Your task to perform on an android device: turn on wifi Image 0: 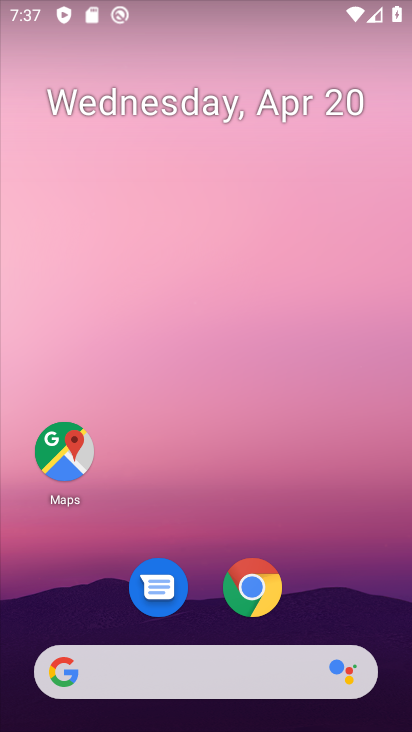
Step 0: drag from (345, 503) to (366, 73)
Your task to perform on an android device: turn on wifi Image 1: 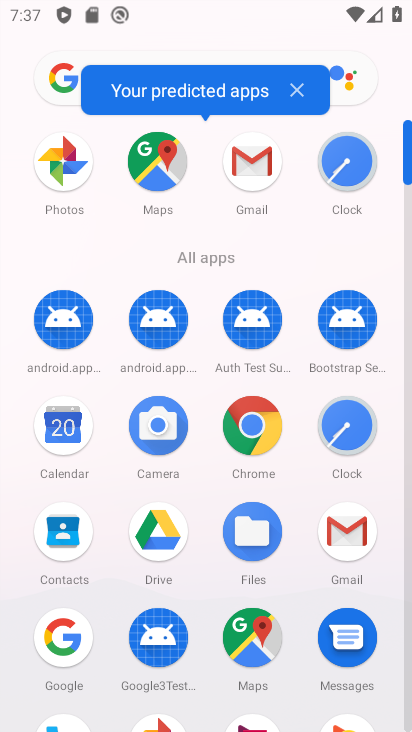
Step 1: drag from (383, 475) to (381, 178)
Your task to perform on an android device: turn on wifi Image 2: 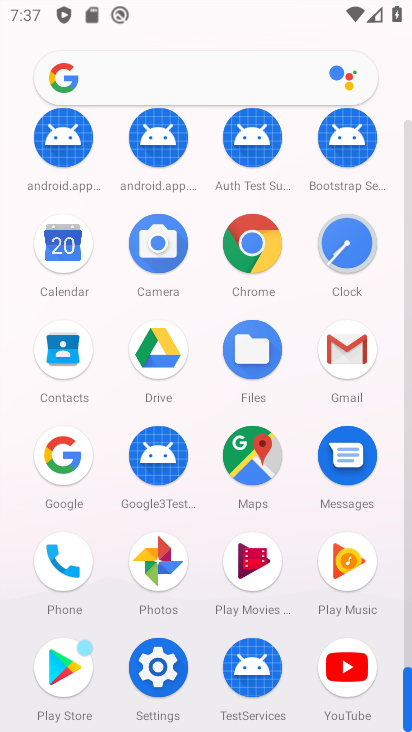
Step 2: click (164, 671)
Your task to perform on an android device: turn on wifi Image 3: 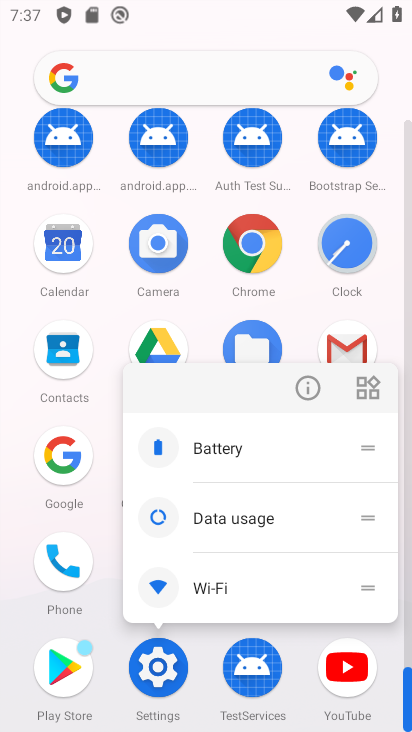
Step 3: click (170, 674)
Your task to perform on an android device: turn on wifi Image 4: 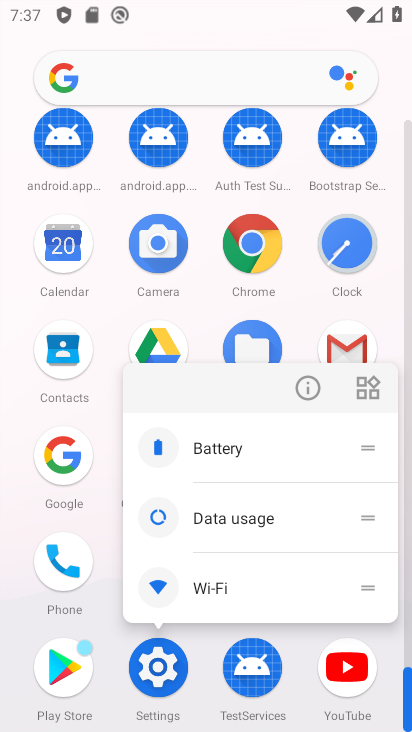
Step 4: click (168, 658)
Your task to perform on an android device: turn on wifi Image 5: 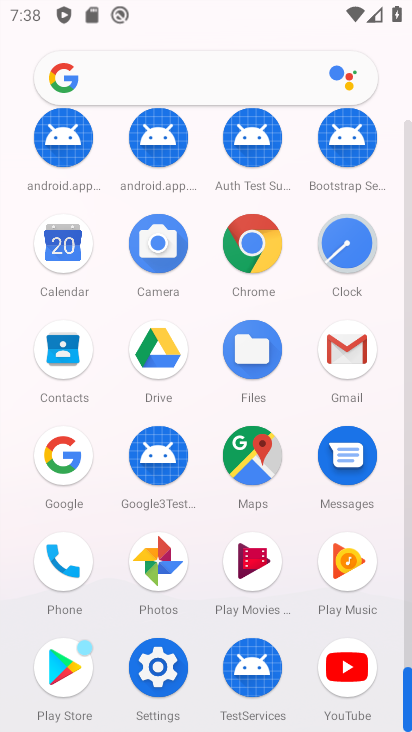
Step 5: click (173, 666)
Your task to perform on an android device: turn on wifi Image 6: 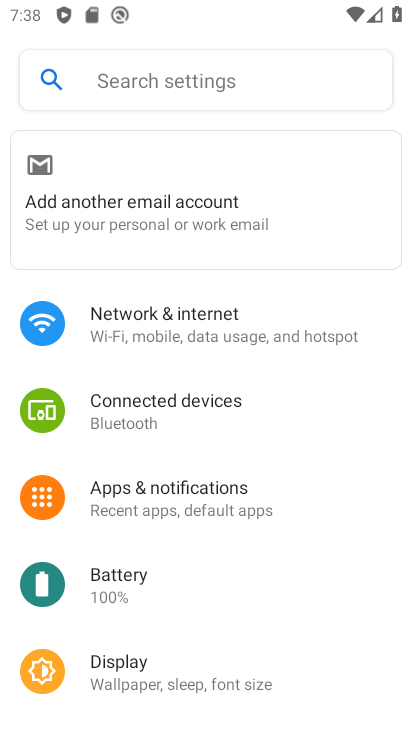
Step 6: click (209, 321)
Your task to perform on an android device: turn on wifi Image 7: 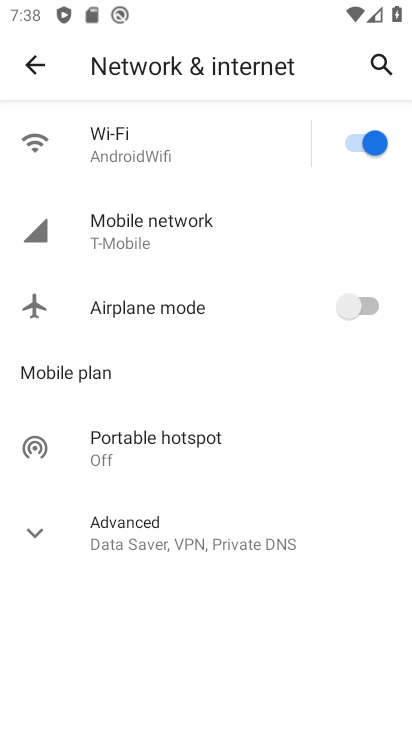
Step 7: task complete